Your task to perform on an android device: turn off location history Image 0: 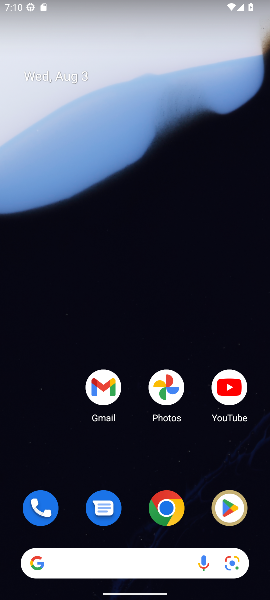
Step 0: drag from (201, 477) to (189, 86)
Your task to perform on an android device: turn off location history Image 1: 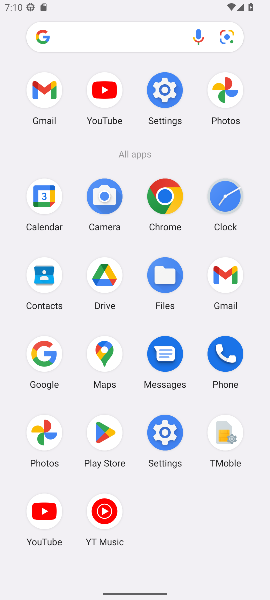
Step 1: click (101, 350)
Your task to perform on an android device: turn off location history Image 2: 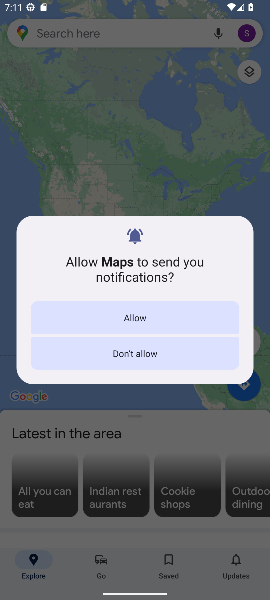
Step 2: click (137, 326)
Your task to perform on an android device: turn off location history Image 3: 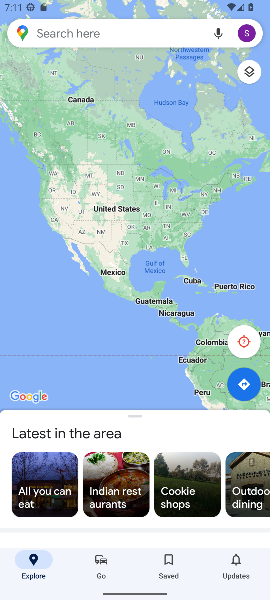
Step 3: click (248, 33)
Your task to perform on an android device: turn off location history Image 4: 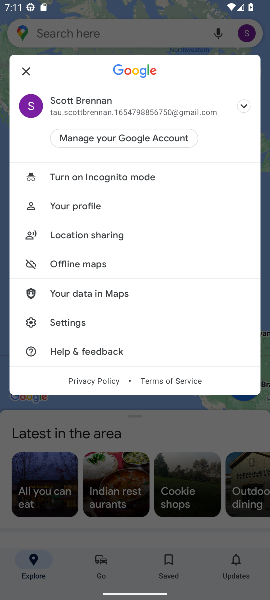
Step 4: click (62, 326)
Your task to perform on an android device: turn off location history Image 5: 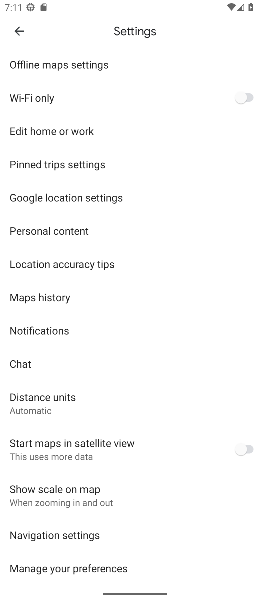
Step 5: click (112, 296)
Your task to perform on an android device: turn off location history Image 6: 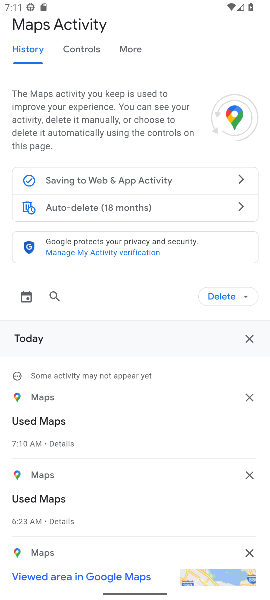
Step 6: task complete